Your task to perform on an android device: Open Chrome and go to settings Image 0: 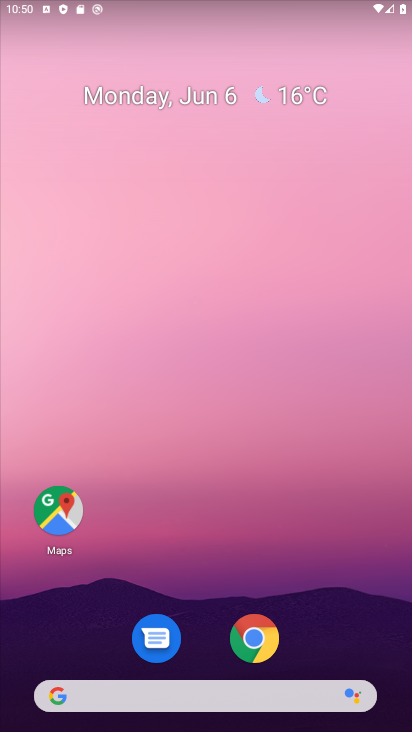
Step 0: drag from (225, 720) to (294, 238)
Your task to perform on an android device: Open Chrome and go to settings Image 1: 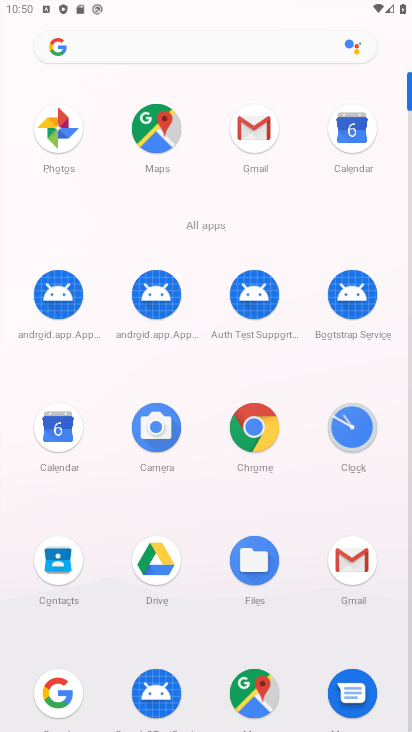
Step 1: click (251, 417)
Your task to perform on an android device: Open Chrome and go to settings Image 2: 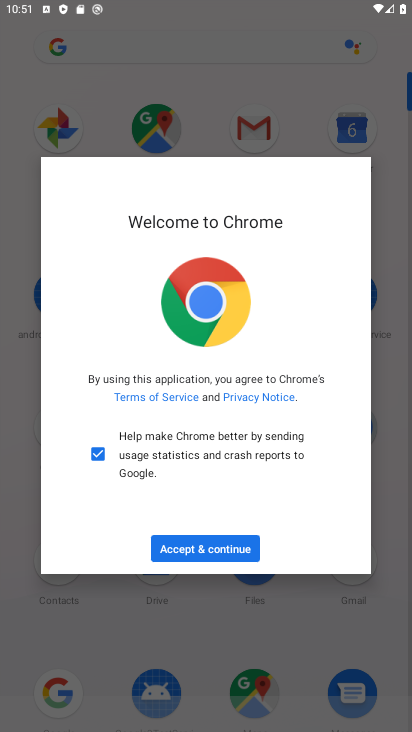
Step 2: click (221, 548)
Your task to perform on an android device: Open Chrome and go to settings Image 3: 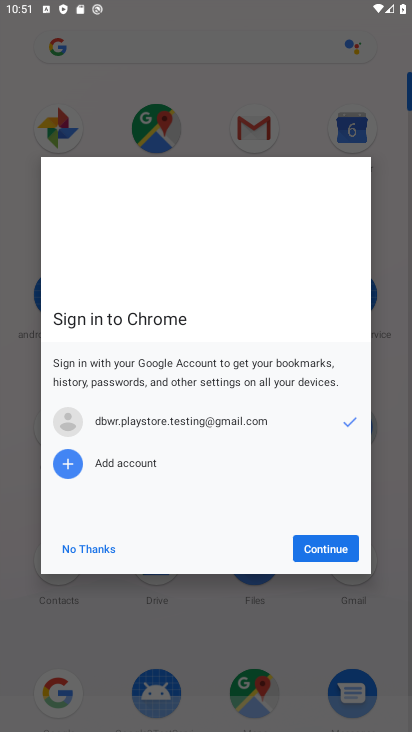
Step 3: click (311, 539)
Your task to perform on an android device: Open Chrome and go to settings Image 4: 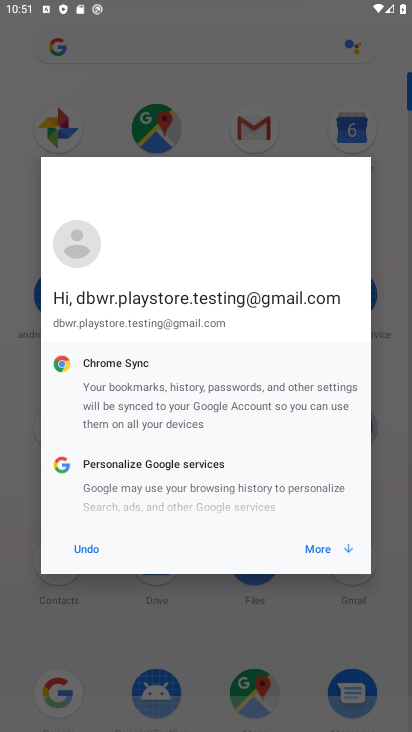
Step 4: click (335, 554)
Your task to perform on an android device: Open Chrome and go to settings Image 5: 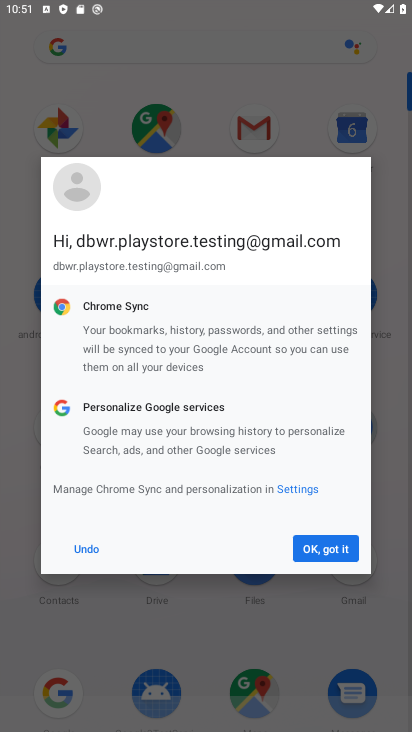
Step 5: click (343, 552)
Your task to perform on an android device: Open Chrome and go to settings Image 6: 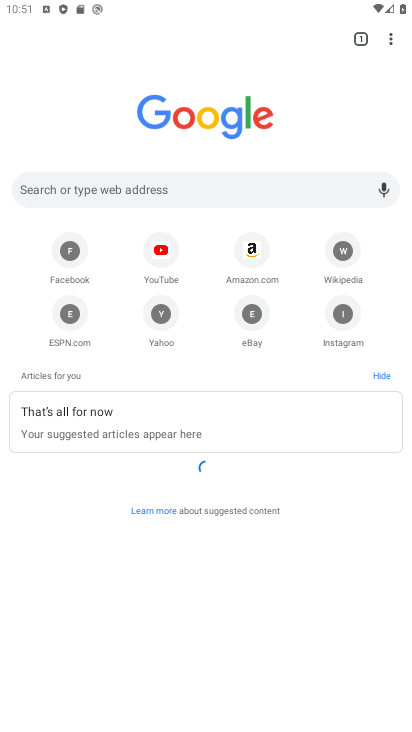
Step 6: click (385, 47)
Your task to perform on an android device: Open Chrome and go to settings Image 7: 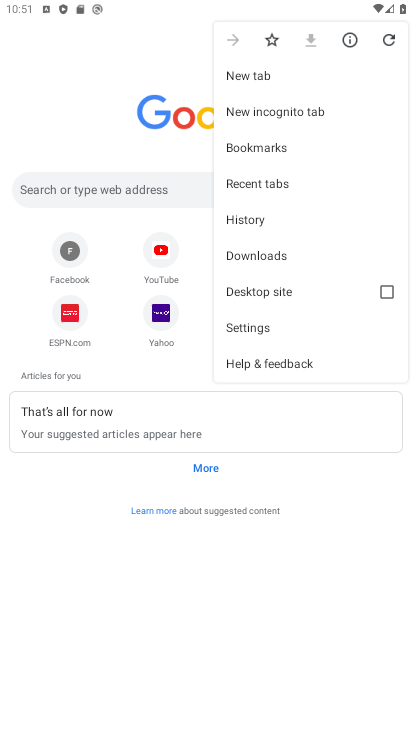
Step 7: click (272, 335)
Your task to perform on an android device: Open Chrome and go to settings Image 8: 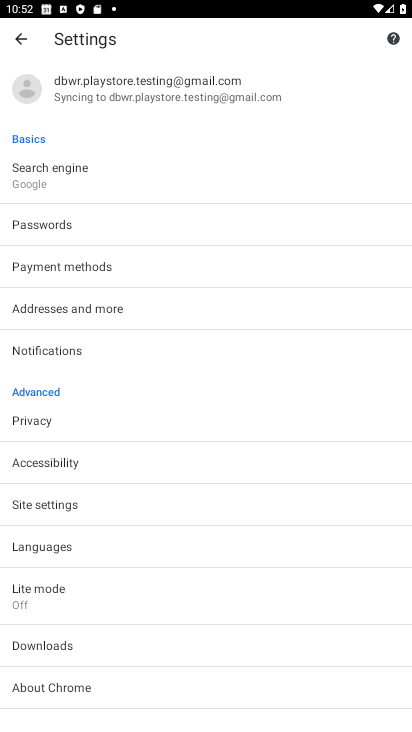
Step 8: task complete